Your task to perform on an android device: Go to battery settings Image 0: 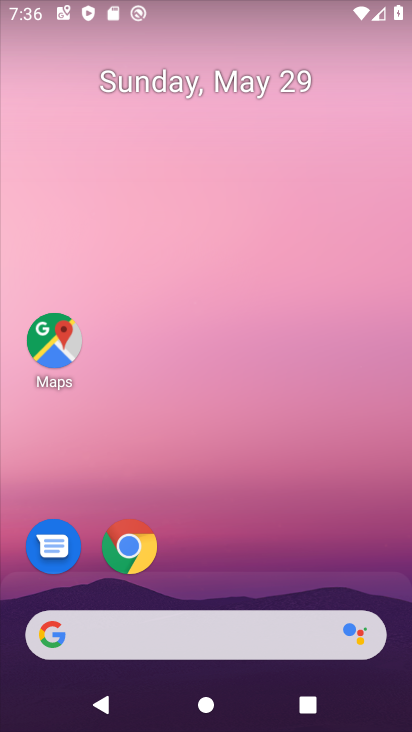
Step 0: drag from (130, 630) to (269, 17)
Your task to perform on an android device: Go to battery settings Image 1: 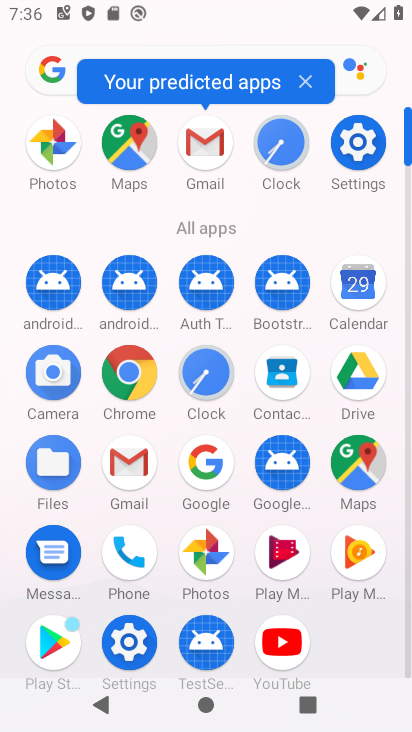
Step 1: click (354, 144)
Your task to perform on an android device: Go to battery settings Image 2: 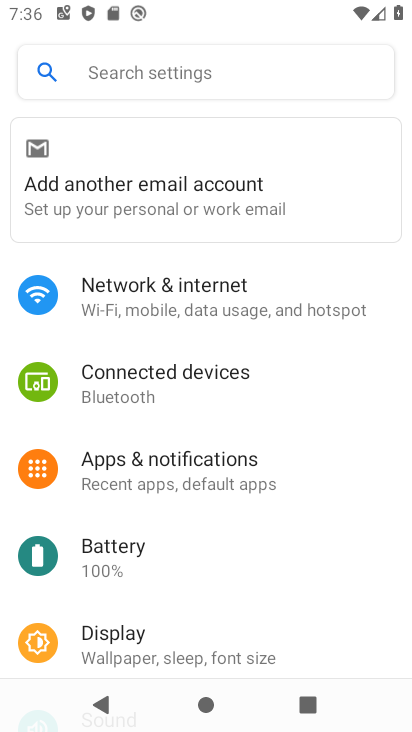
Step 2: click (118, 568)
Your task to perform on an android device: Go to battery settings Image 3: 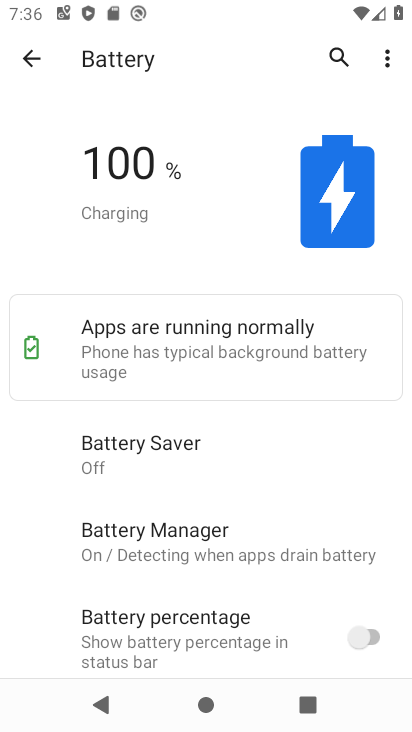
Step 3: click (389, 57)
Your task to perform on an android device: Go to battery settings Image 4: 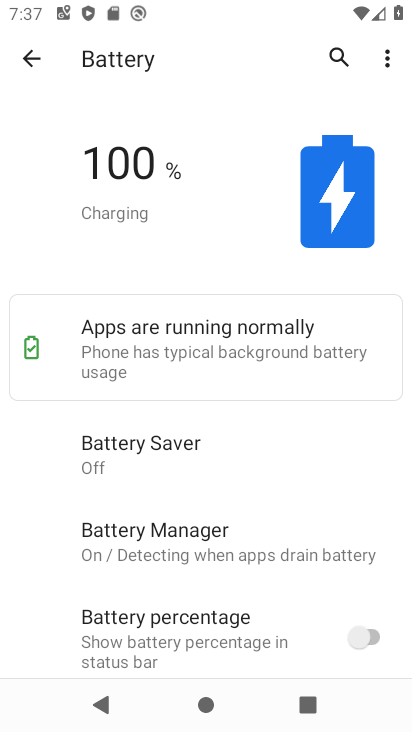
Step 4: click (252, 68)
Your task to perform on an android device: Go to battery settings Image 5: 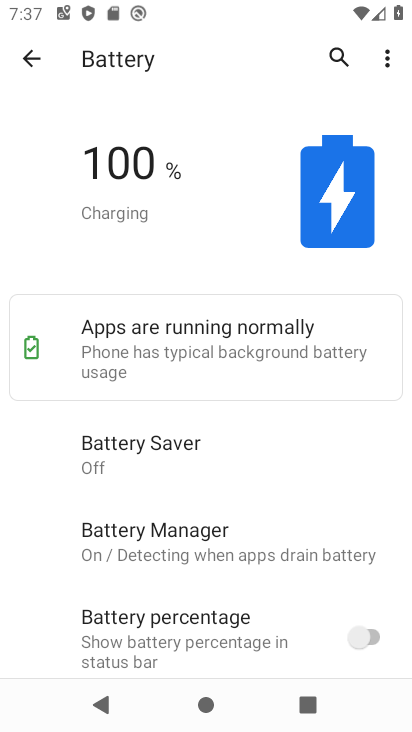
Step 5: task complete